Your task to perform on an android device: toggle notifications settings in the gmail app Image 0: 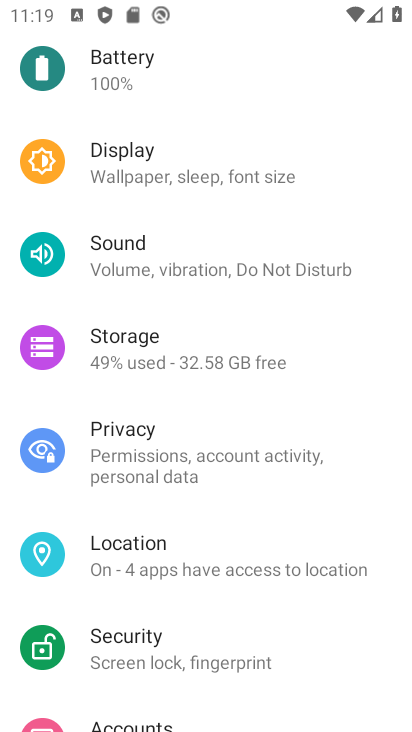
Step 0: press home button
Your task to perform on an android device: toggle notifications settings in the gmail app Image 1: 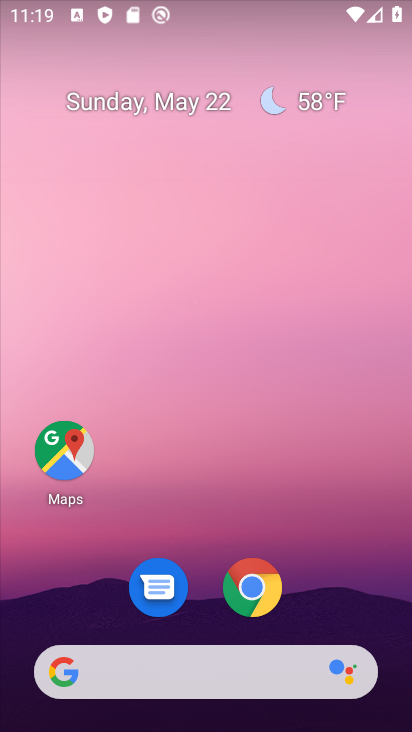
Step 1: drag from (227, 485) to (246, 21)
Your task to perform on an android device: toggle notifications settings in the gmail app Image 2: 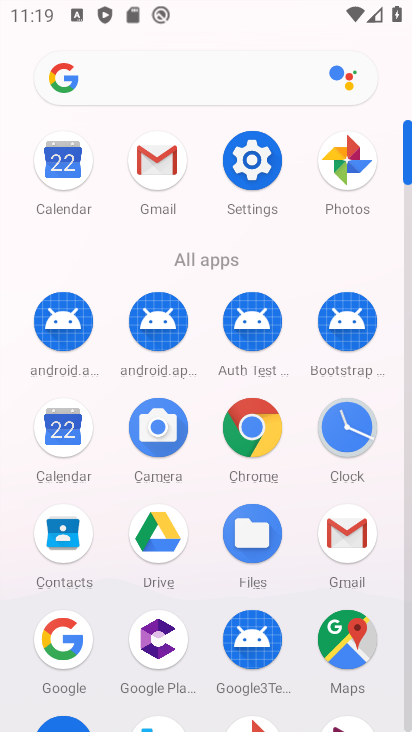
Step 2: click (160, 174)
Your task to perform on an android device: toggle notifications settings in the gmail app Image 3: 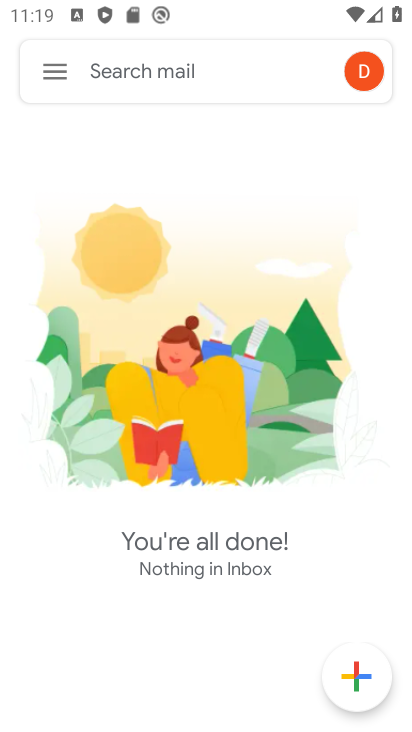
Step 3: click (53, 71)
Your task to perform on an android device: toggle notifications settings in the gmail app Image 4: 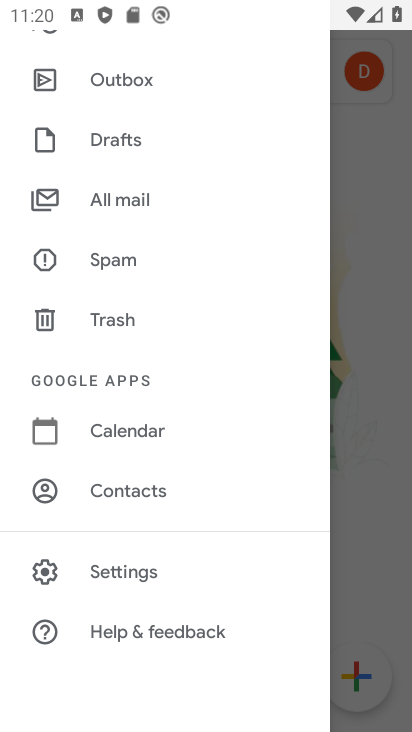
Step 4: click (181, 577)
Your task to perform on an android device: toggle notifications settings in the gmail app Image 5: 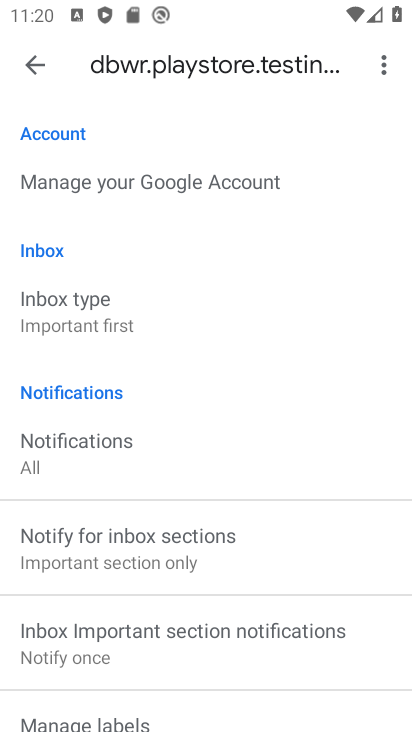
Step 5: drag from (268, 469) to (285, 257)
Your task to perform on an android device: toggle notifications settings in the gmail app Image 6: 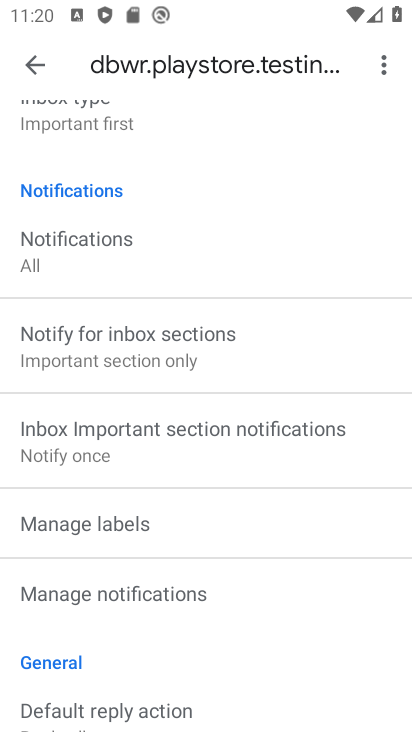
Step 6: click (263, 586)
Your task to perform on an android device: toggle notifications settings in the gmail app Image 7: 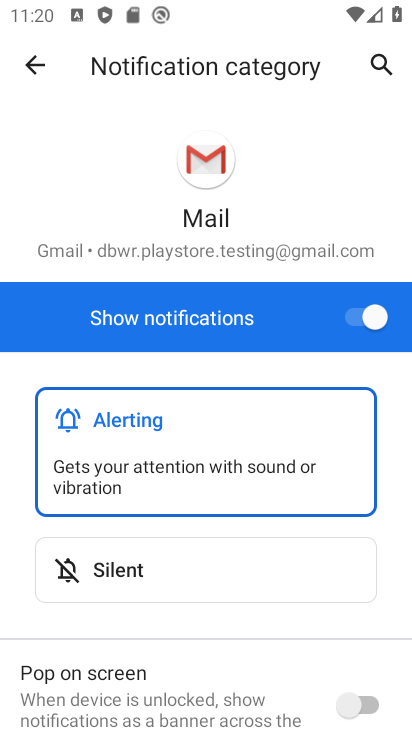
Step 7: click (352, 308)
Your task to perform on an android device: toggle notifications settings in the gmail app Image 8: 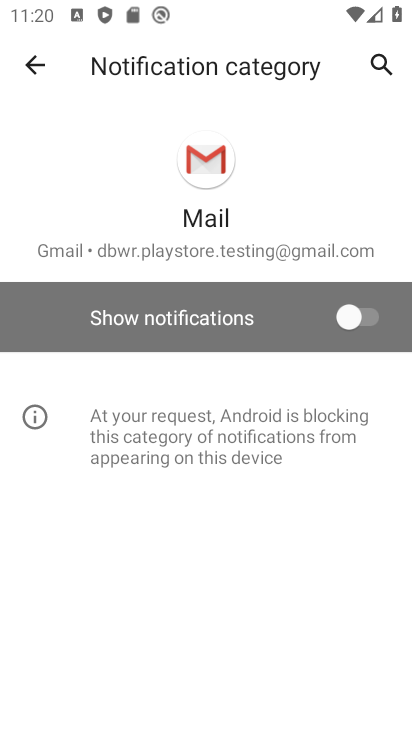
Step 8: task complete